Your task to perform on an android device: empty trash in the gmail app Image 0: 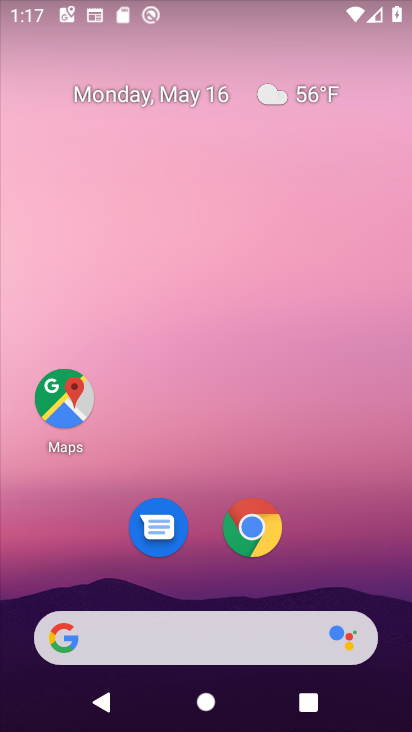
Step 0: drag from (174, 528) to (151, 81)
Your task to perform on an android device: empty trash in the gmail app Image 1: 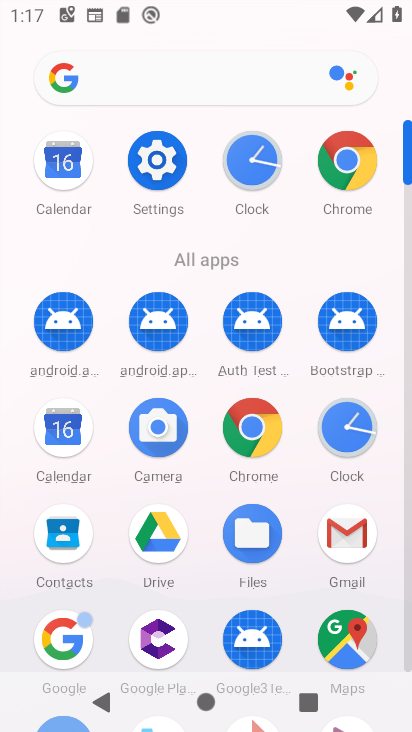
Step 1: click (348, 549)
Your task to perform on an android device: empty trash in the gmail app Image 2: 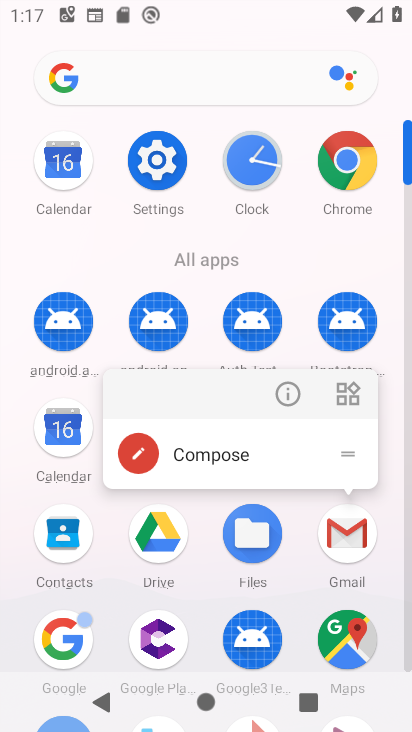
Step 2: click (348, 538)
Your task to perform on an android device: empty trash in the gmail app Image 3: 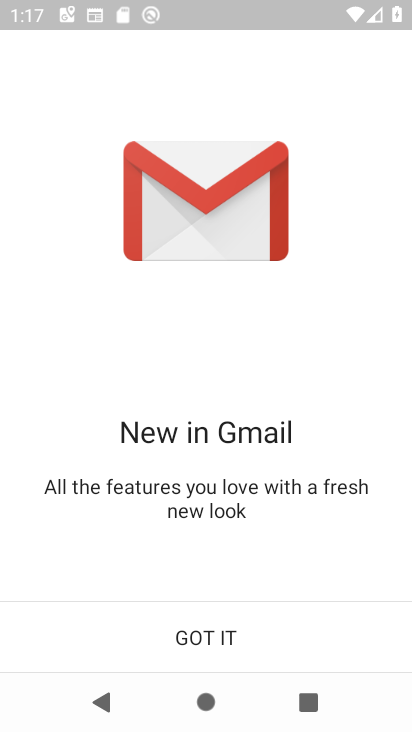
Step 3: click (257, 652)
Your task to perform on an android device: empty trash in the gmail app Image 4: 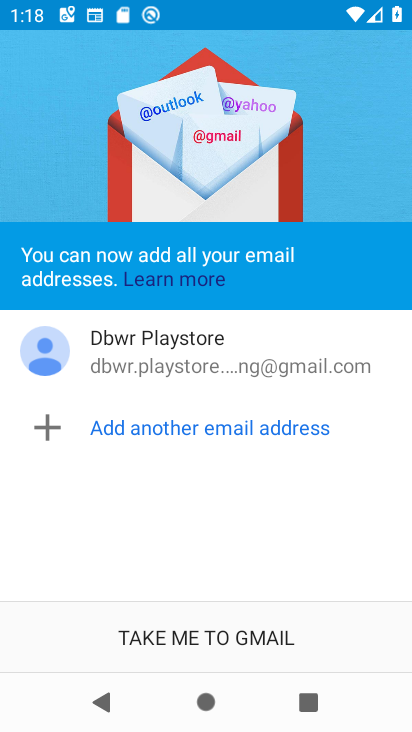
Step 4: click (231, 630)
Your task to perform on an android device: empty trash in the gmail app Image 5: 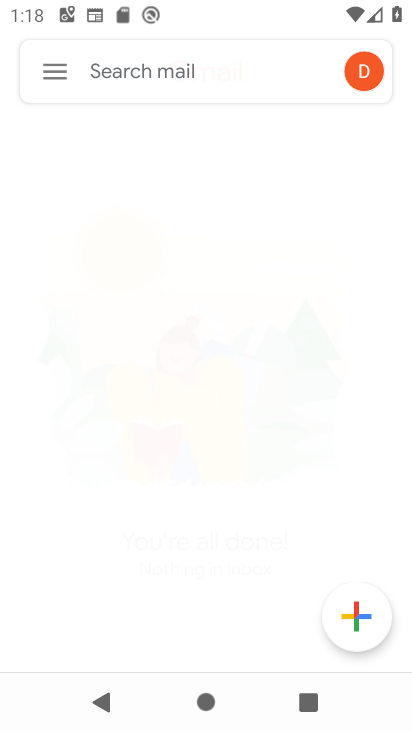
Step 5: click (50, 89)
Your task to perform on an android device: empty trash in the gmail app Image 6: 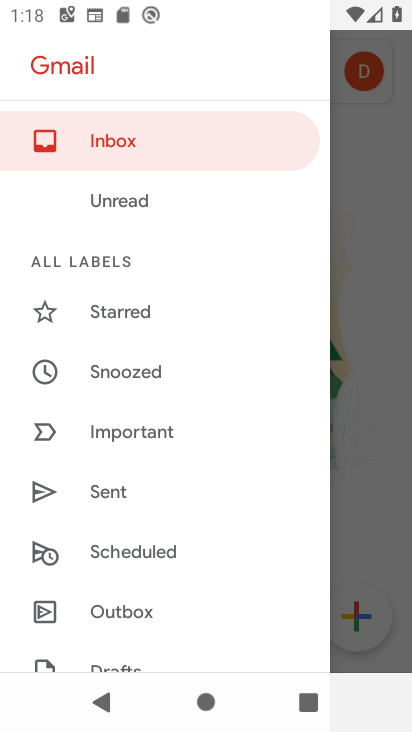
Step 6: drag from (157, 588) to (138, 8)
Your task to perform on an android device: empty trash in the gmail app Image 7: 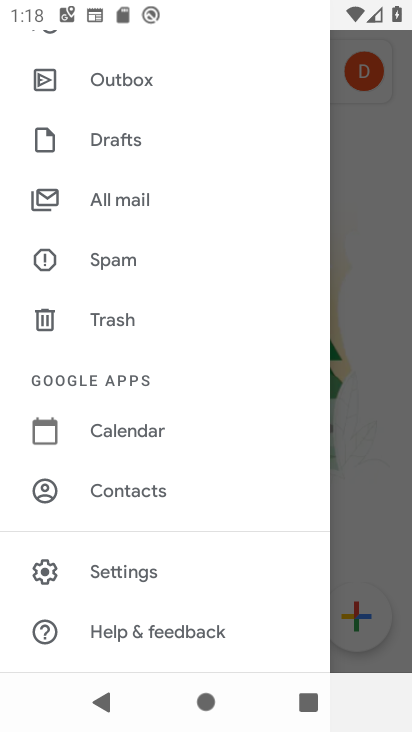
Step 7: click (108, 323)
Your task to perform on an android device: empty trash in the gmail app Image 8: 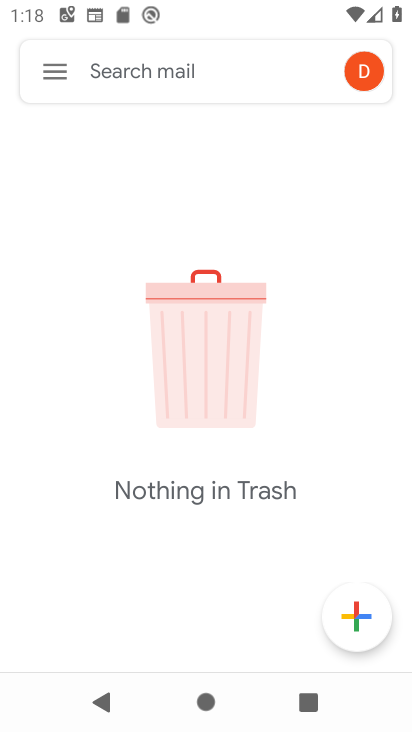
Step 8: task complete